Your task to perform on an android device: open sync settings in chrome Image 0: 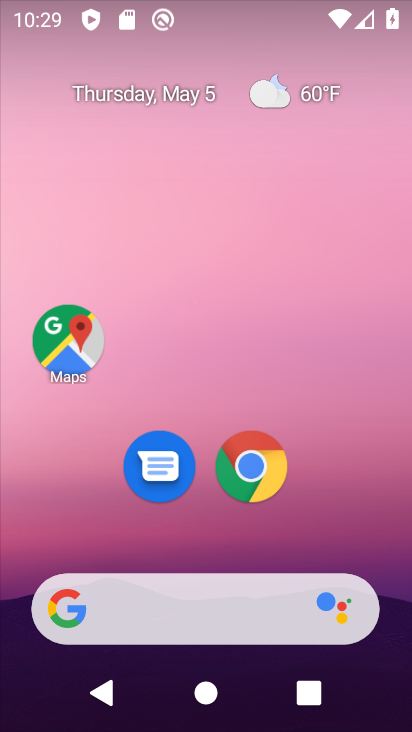
Step 0: click (246, 476)
Your task to perform on an android device: open sync settings in chrome Image 1: 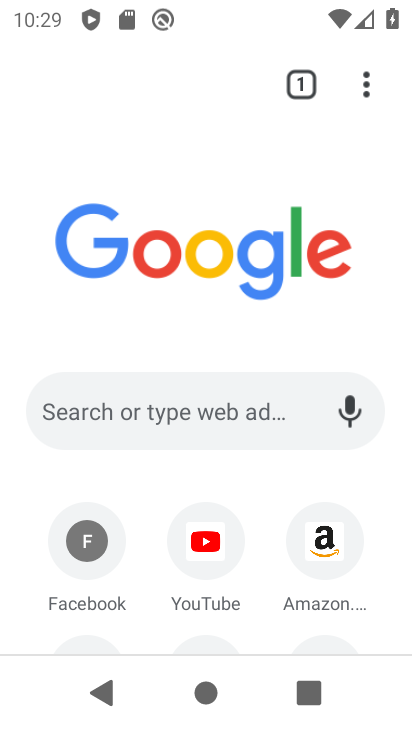
Step 1: click (367, 76)
Your task to perform on an android device: open sync settings in chrome Image 2: 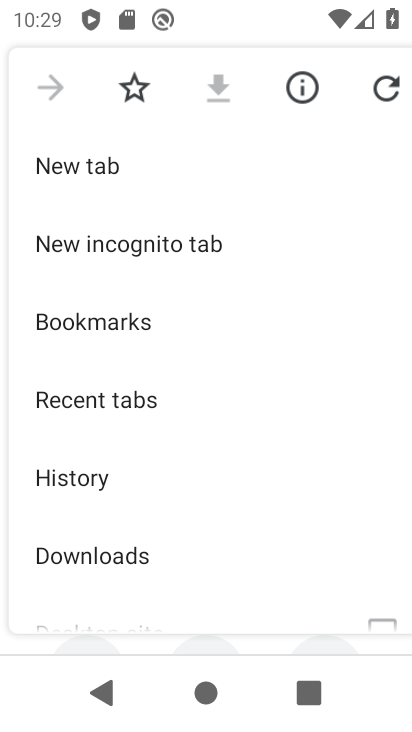
Step 2: drag from (140, 590) to (181, 204)
Your task to perform on an android device: open sync settings in chrome Image 3: 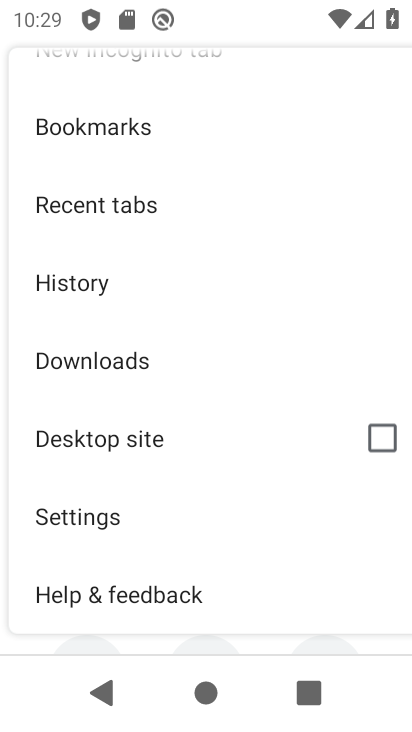
Step 3: click (83, 521)
Your task to perform on an android device: open sync settings in chrome Image 4: 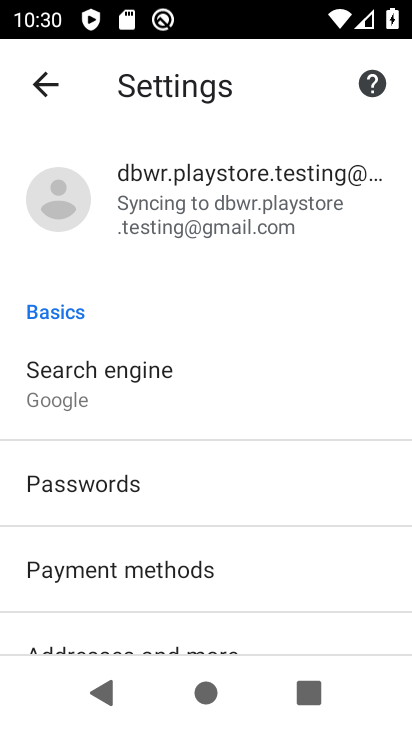
Step 4: click (175, 212)
Your task to perform on an android device: open sync settings in chrome Image 5: 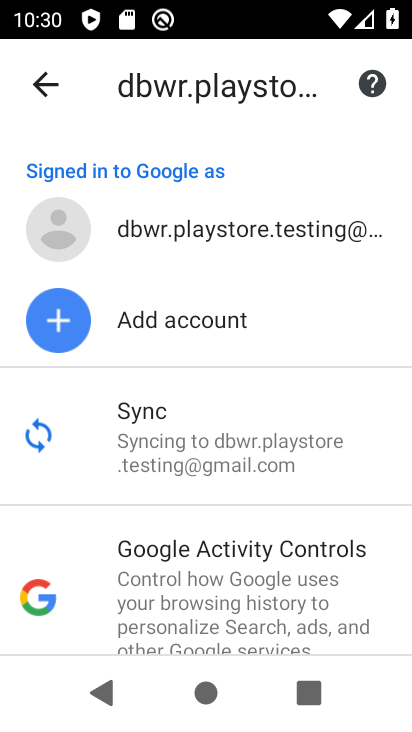
Step 5: click (160, 415)
Your task to perform on an android device: open sync settings in chrome Image 6: 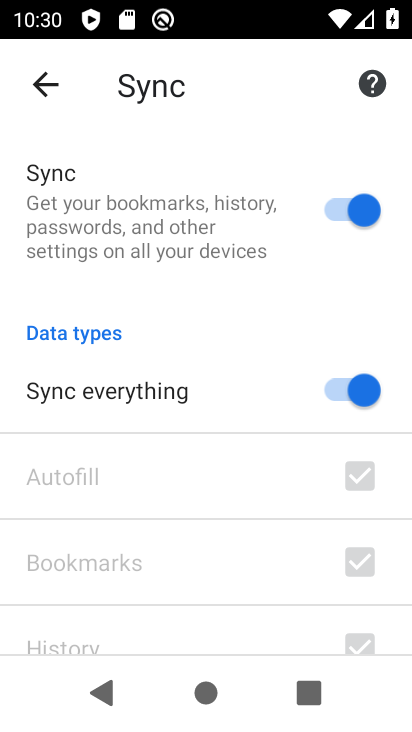
Step 6: task complete